Your task to perform on an android device: Go to calendar. Show me events next week Image 0: 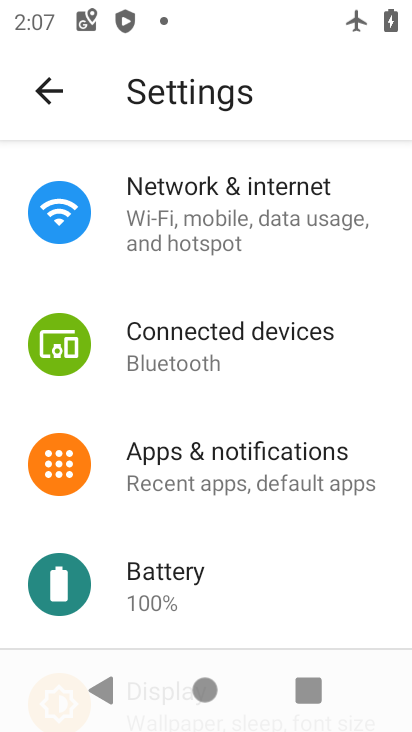
Step 0: press home button
Your task to perform on an android device: Go to calendar. Show me events next week Image 1: 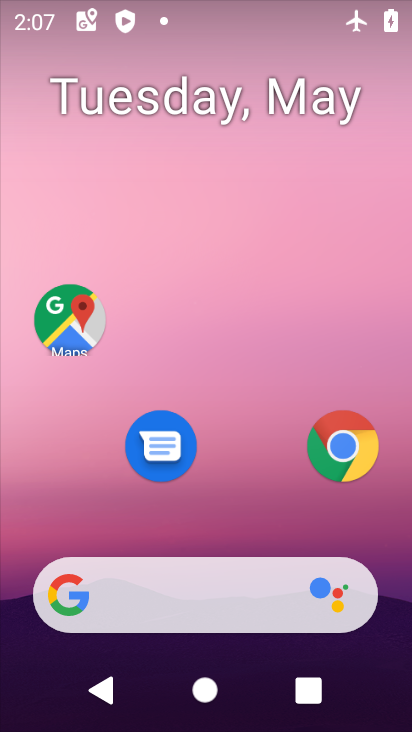
Step 1: drag from (185, 574) to (221, 20)
Your task to perform on an android device: Go to calendar. Show me events next week Image 2: 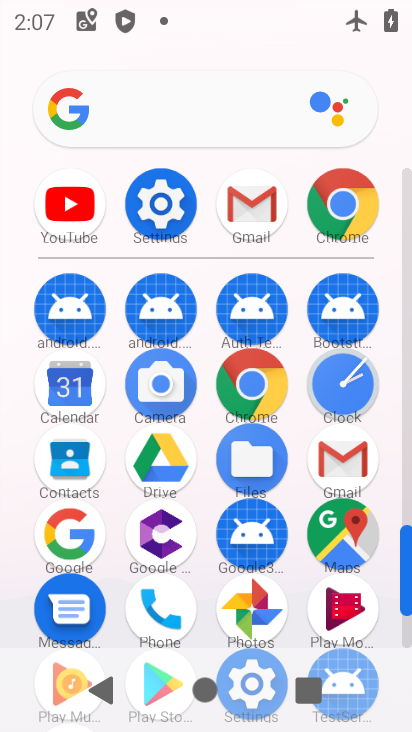
Step 2: drag from (64, 458) to (67, 389)
Your task to perform on an android device: Go to calendar. Show me events next week Image 3: 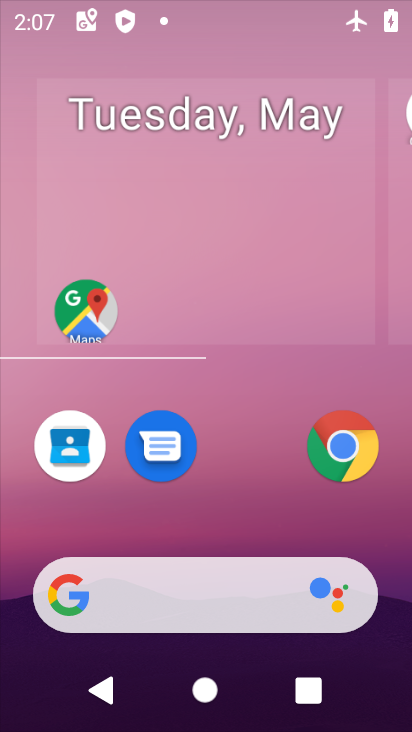
Step 3: drag from (194, 545) to (137, 60)
Your task to perform on an android device: Go to calendar. Show me events next week Image 4: 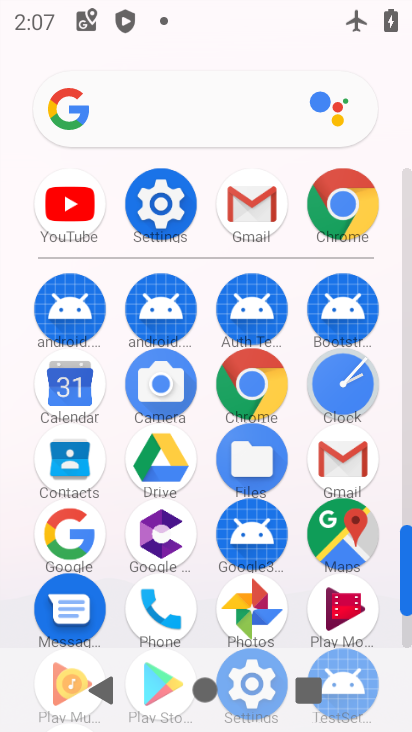
Step 4: click (50, 406)
Your task to perform on an android device: Go to calendar. Show me events next week Image 5: 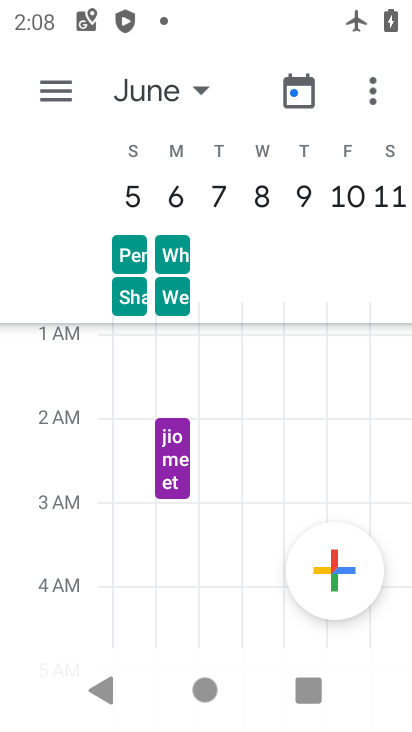
Step 5: task complete